Your task to perform on an android device: Open Chrome and go to settings Image 0: 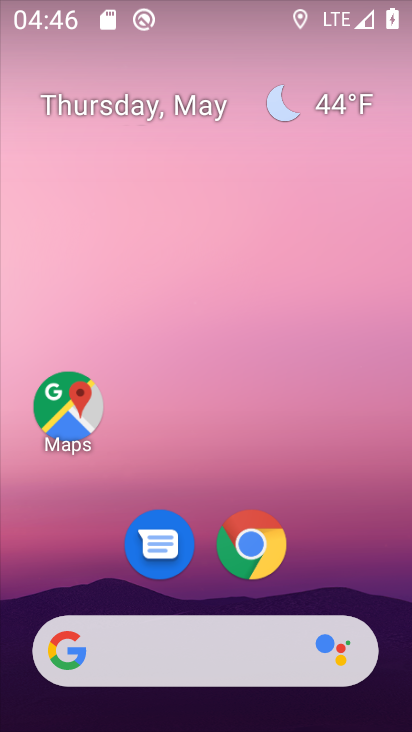
Step 0: click (250, 544)
Your task to perform on an android device: Open Chrome and go to settings Image 1: 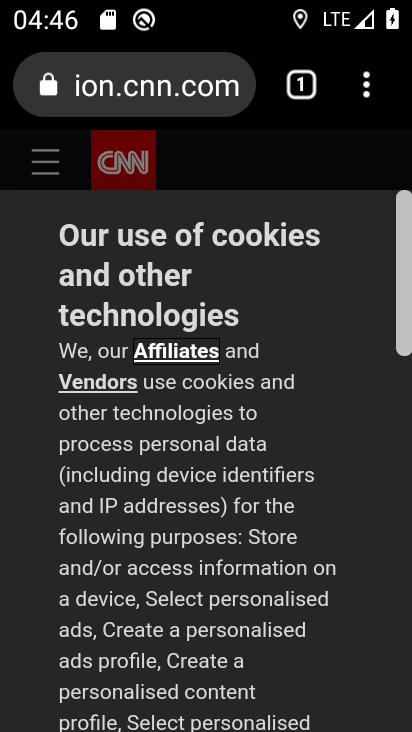
Step 1: click (360, 92)
Your task to perform on an android device: Open Chrome and go to settings Image 2: 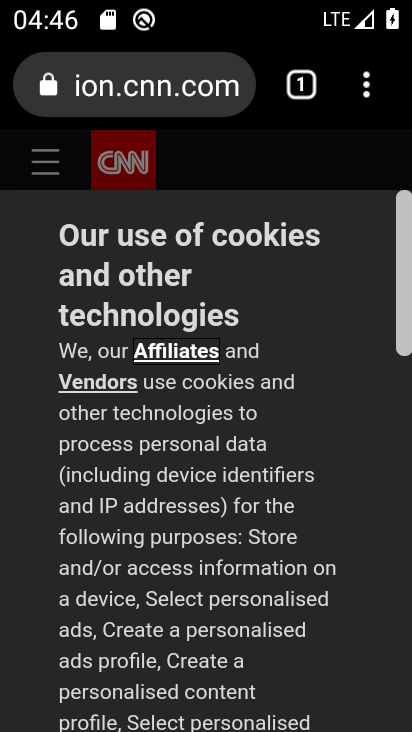
Step 2: click (351, 94)
Your task to perform on an android device: Open Chrome and go to settings Image 3: 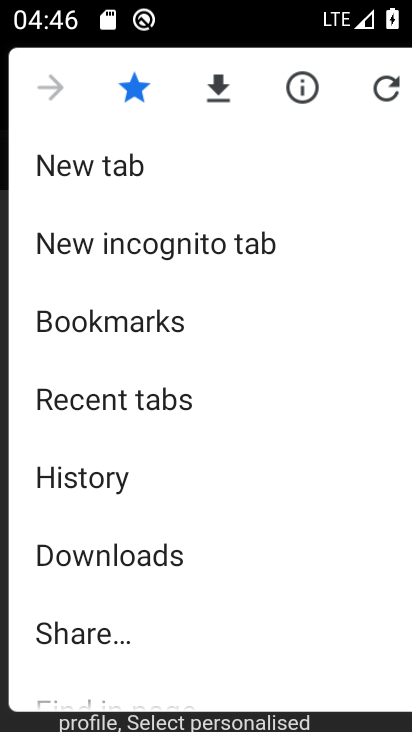
Step 3: drag from (135, 640) to (205, 310)
Your task to perform on an android device: Open Chrome and go to settings Image 4: 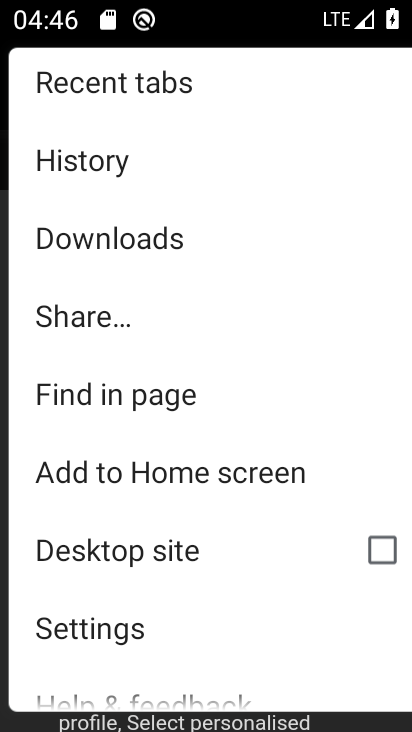
Step 4: drag from (191, 572) to (225, 272)
Your task to perform on an android device: Open Chrome and go to settings Image 5: 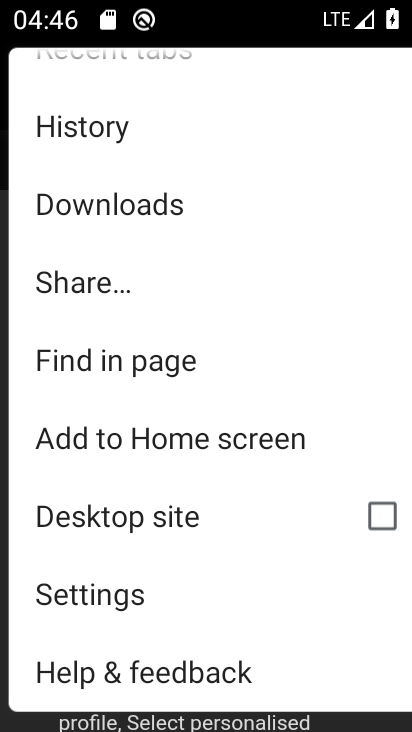
Step 5: click (154, 593)
Your task to perform on an android device: Open Chrome and go to settings Image 6: 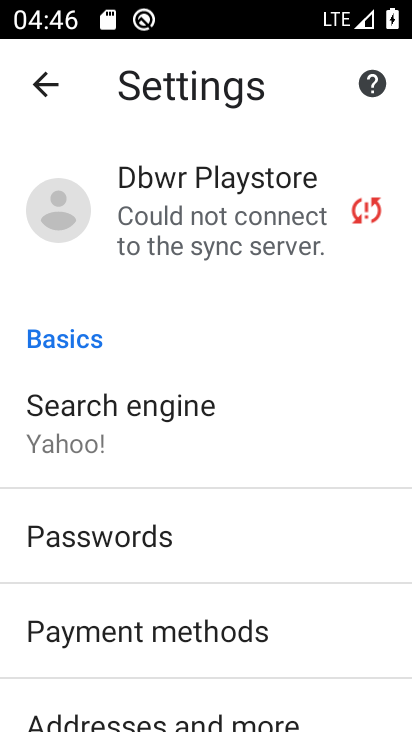
Step 6: task complete